Your task to perform on an android device: Open Yahoo.com Image 0: 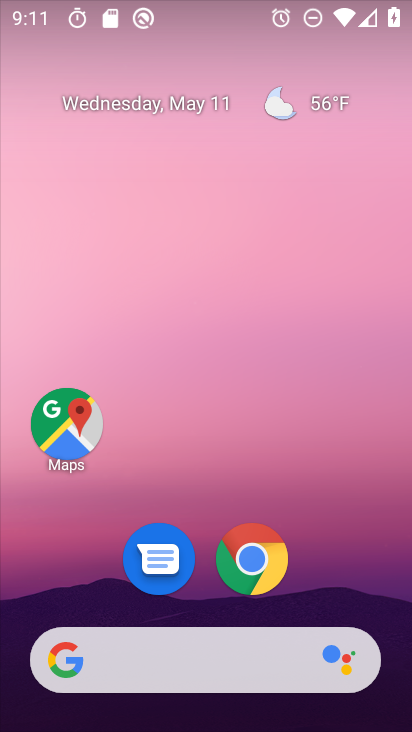
Step 0: click (255, 546)
Your task to perform on an android device: Open Yahoo.com Image 1: 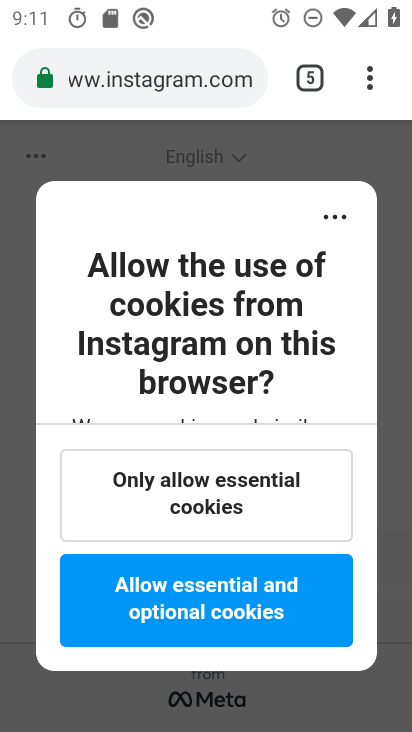
Step 1: click (299, 73)
Your task to perform on an android device: Open Yahoo.com Image 2: 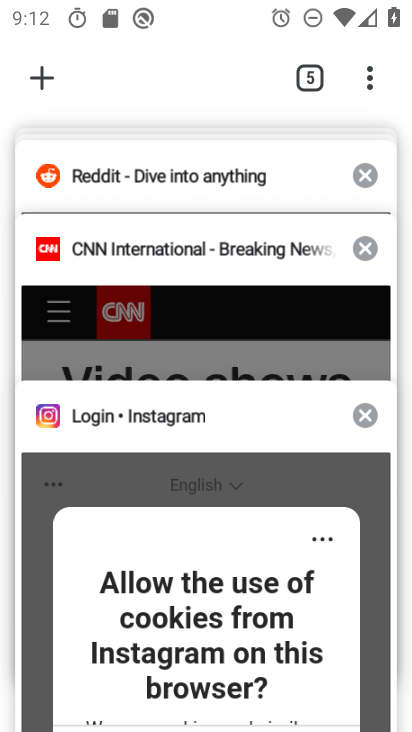
Step 2: drag from (227, 187) to (236, 373)
Your task to perform on an android device: Open Yahoo.com Image 3: 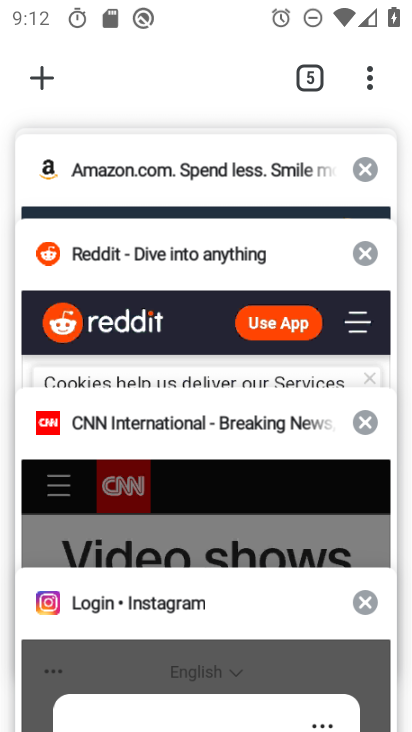
Step 3: click (42, 75)
Your task to perform on an android device: Open Yahoo.com Image 4: 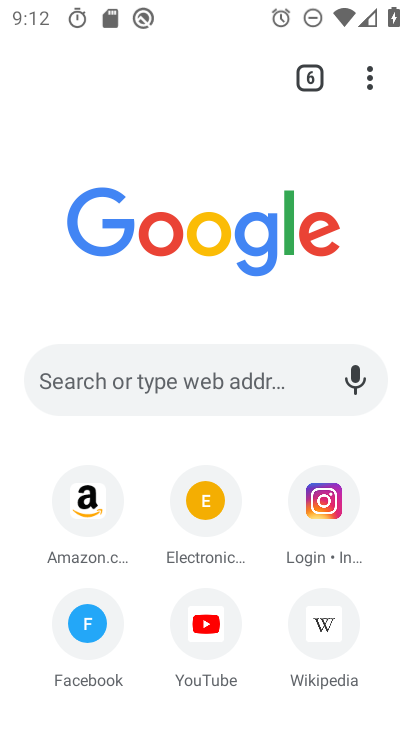
Step 4: click (173, 385)
Your task to perform on an android device: Open Yahoo.com Image 5: 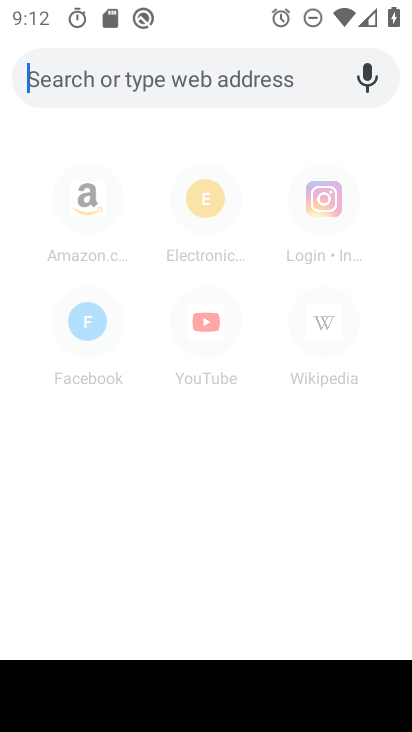
Step 5: type "yahoo.co"
Your task to perform on an android device: Open Yahoo.com Image 6: 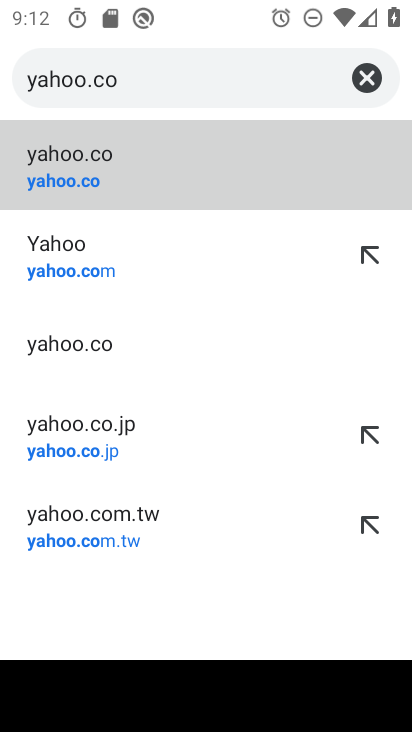
Step 6: click (70, 257)
Your task to perform on an android device: Open Yahoo.com Image 7: 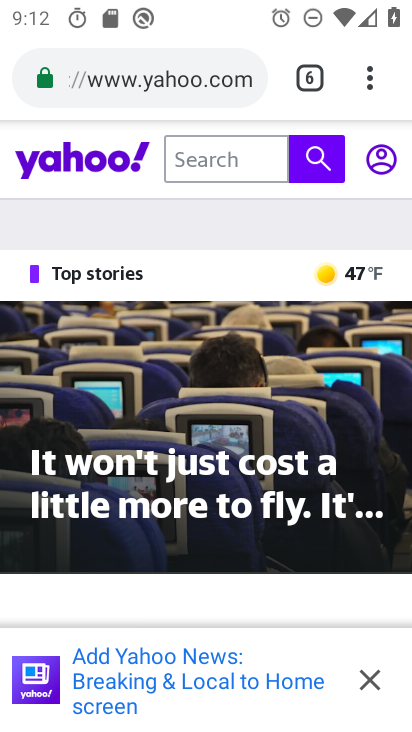
Step 7: task complete